Your task to perform on an android device: Open CNN.com Image 0: 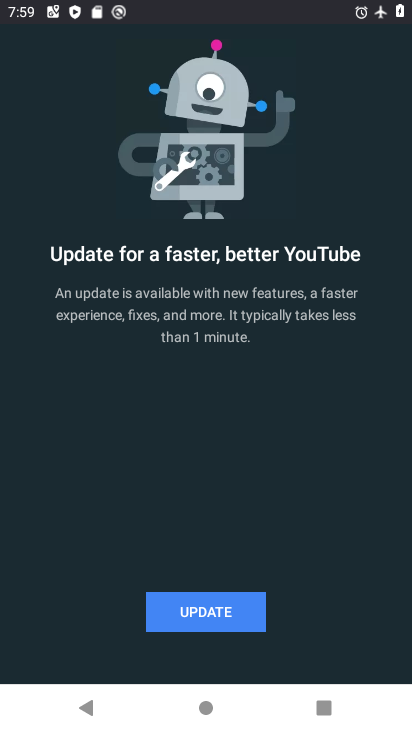
Step 0: press home button
Your task to perform on an android device: Open CNN.com Image 1: 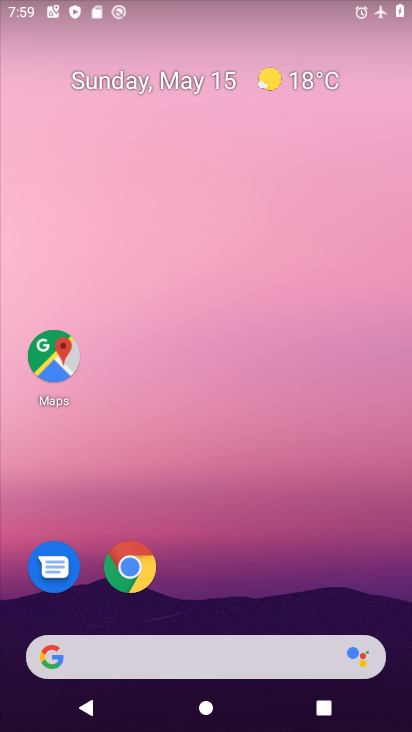
Step 1: click (224, 663)
Your task to perform on an android device: Open CNN.com Image 2: 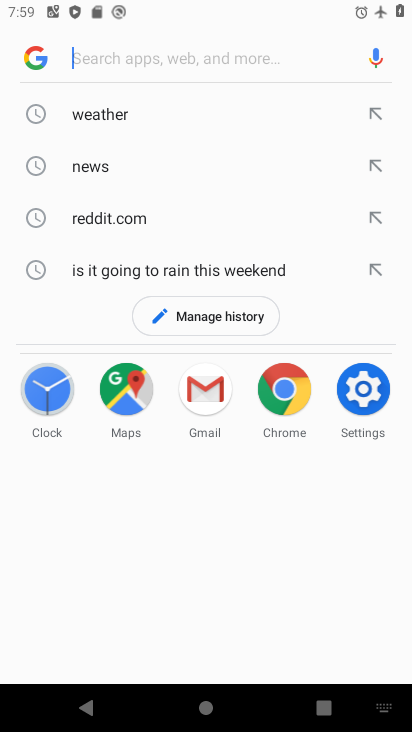
Step 2: type "cnn.com"
Your task to perform on an android device: Open CNN.com Image 3: 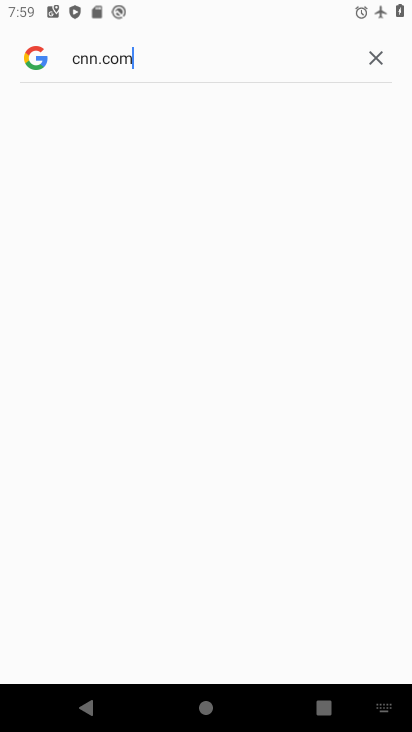
Step 3: task complete